Your task to perform on an android device: choose inbox layout in the gmail app Image 0: 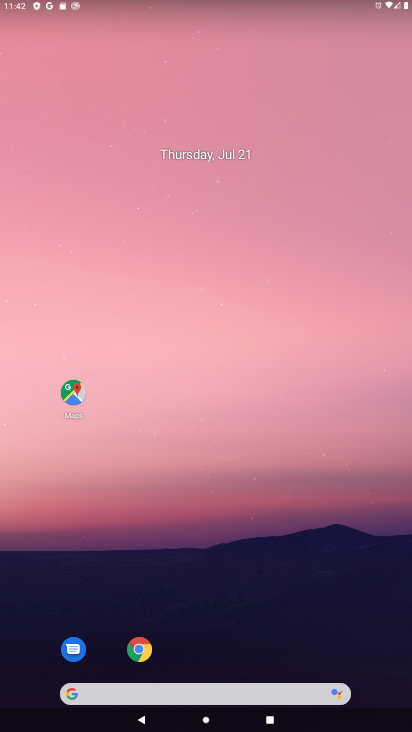
Step 0: drag from (358, 598) to (287, 118)
Your task to perform on an android device: choose inbox layout in the gmail app Image 1: 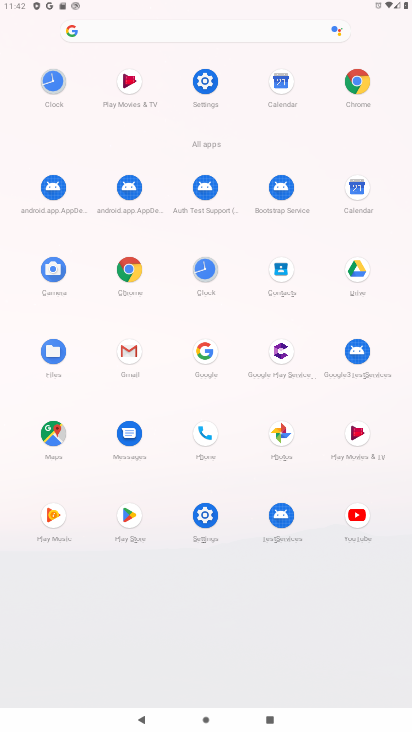
Step 1: click (130, 355)
Your task to perform on an android device: choose inbox layout in the gmail app Image 2: 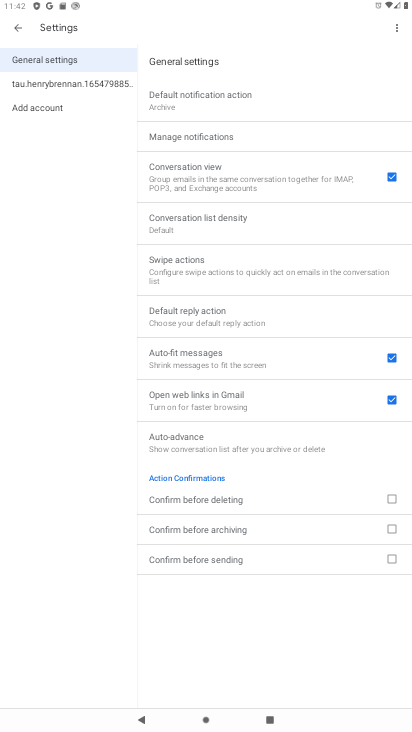
Step 2: click (25, 79)
Your task to perform on an android device: choose inbox layout in the gmail app Image 3: 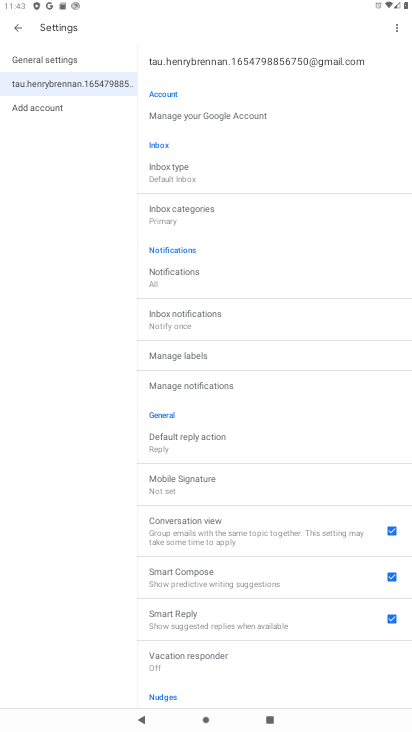
Step 3: click (180, 165)
Your task to perform on an android device: choose inbox layout in the gmail app Image 4: 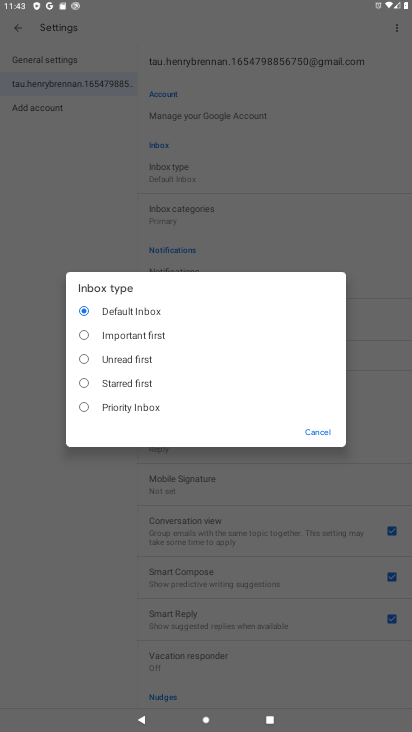
Step 4: task complete